Your task to perform on an android device: Open Yahoo.com Image 0: 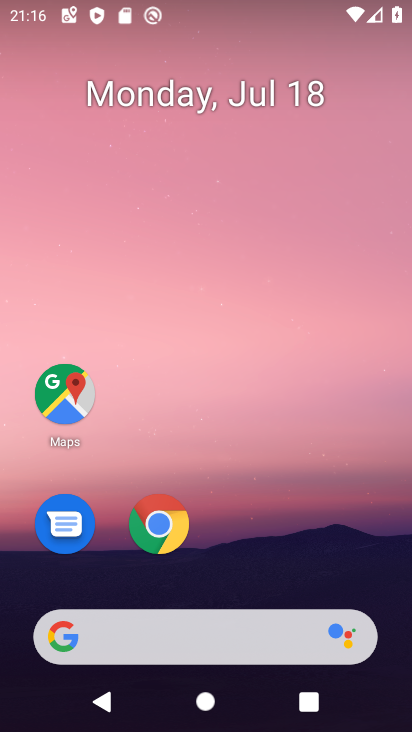
Step 0: click (242, 636)
Your task to perform on an android device: Open Yahoo.com Image 1: 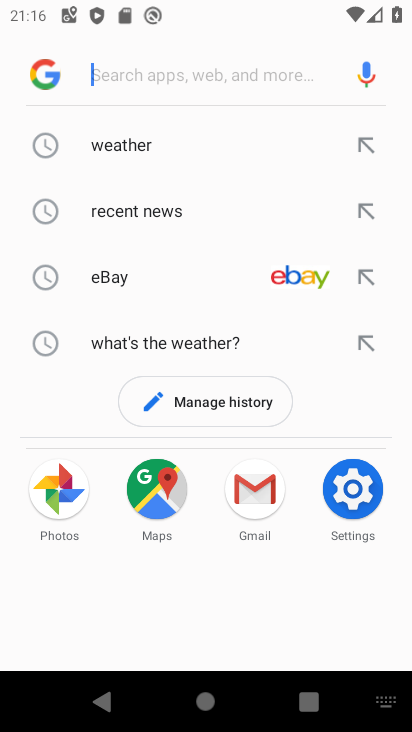
Step 1: type "yahoo.com"
Your task to perform on an android device: Open Yahoo.com Image 2: 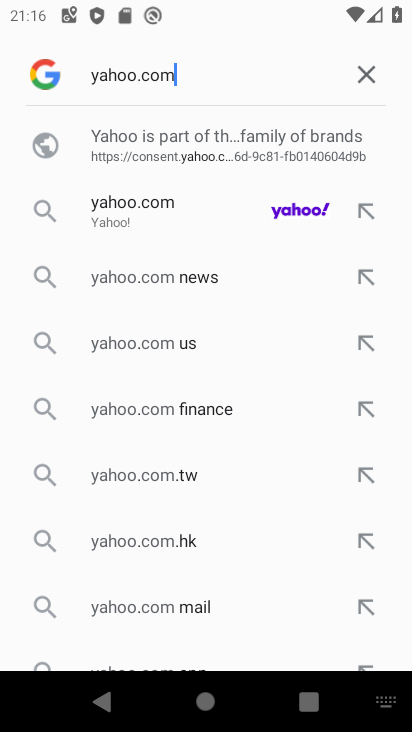
Step 2: click (305, 203)
Your task to perform on an android device: Open Yahoo.com Image 3: 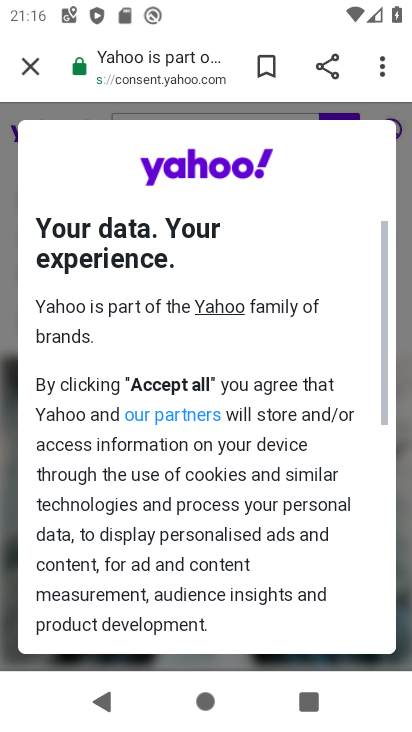
Step 3: drag from (266, 524) to (294, 265)
Your task to perform on an android device: Open Yahoo.com Image 4: 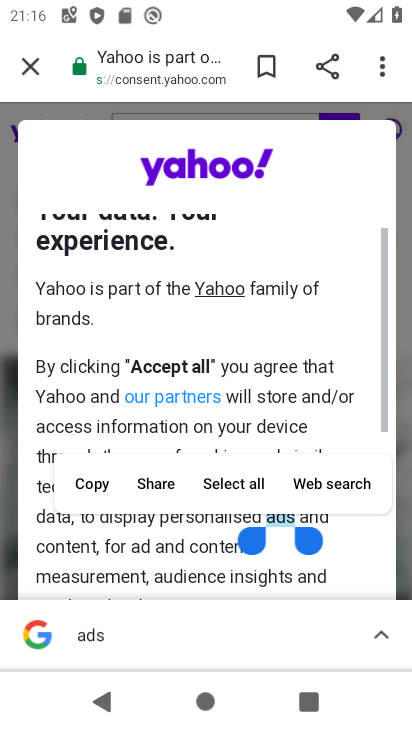
Step 4: click (277, 250)
Your task to perform on an android device: Open Yahoo.com Image 5: 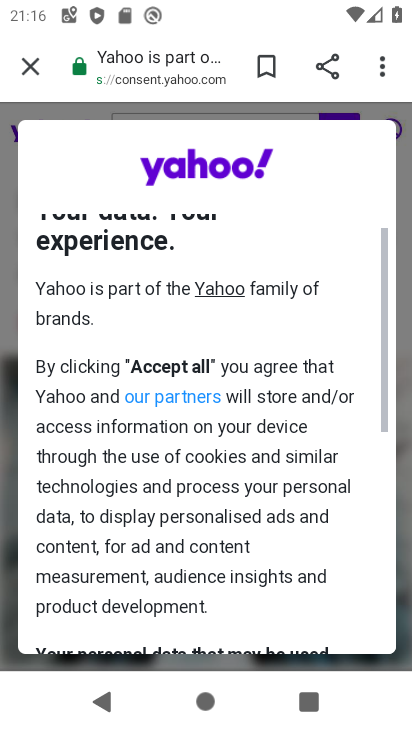
Step 5: click (200, 364)
Your task to perform on an android device: Open Yahoo.com Image 6: 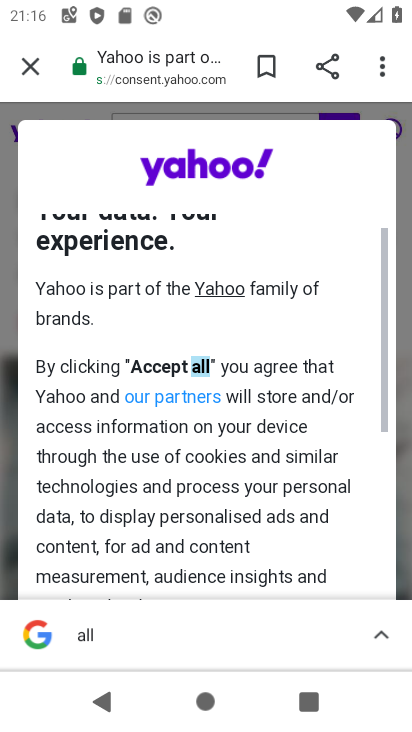
Step 6: drag from (287, 522) to (335, 238)
Your task to perform on an android device: Open Yahoo.com Image 7: 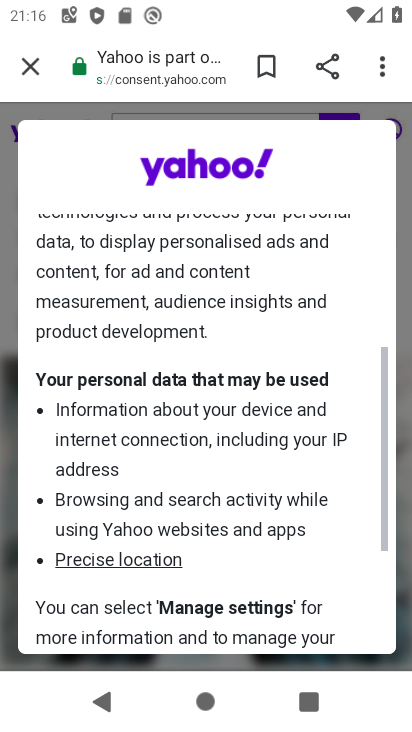
Step 7: drag from (311, 500) to (280, 246)
Your task to perform on an android device: Open Yahoo.com Image 8: 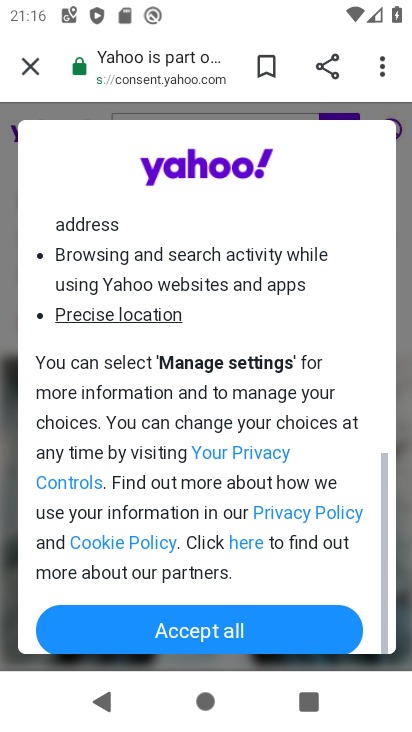
Step 8: click (304, 624)
Your task to perform on an android device: Open Yahoo.com Image 9: 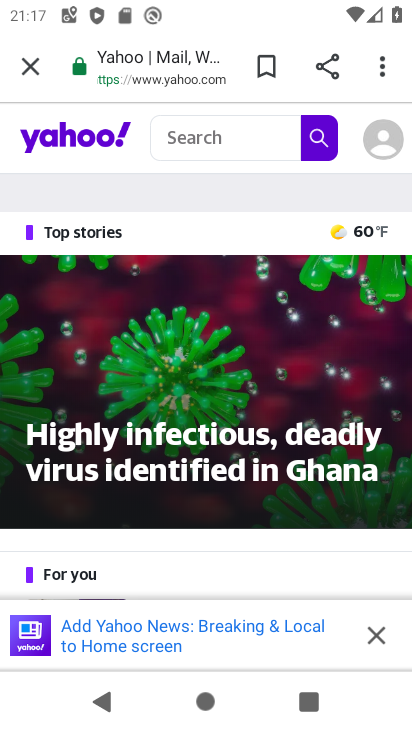
Step 9: drag from (209, 475) to (214, 120)
Your task to perform on an android device: Open Yahoo.com Image 10: 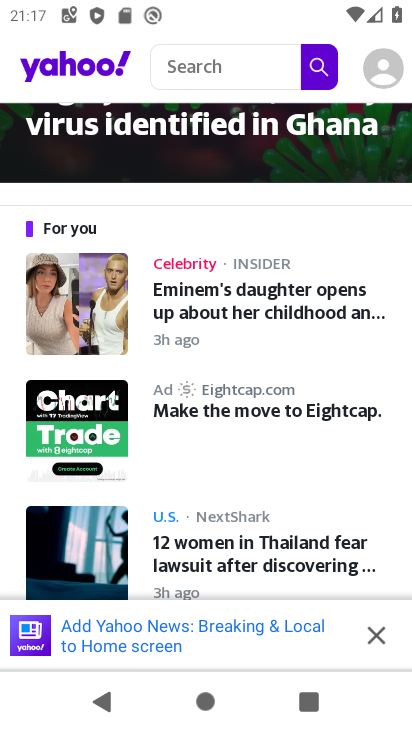
Step 10: drag from (264, 471) to (266, 214)
Your task to perform on an android device: Open Yahoo.com Image 11: 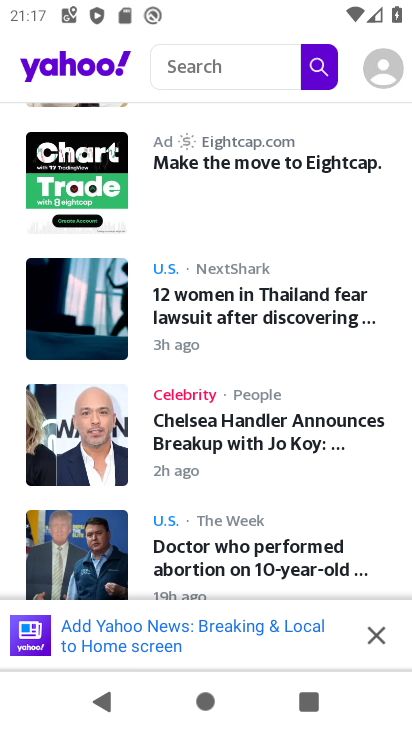
Step 11: click (268, 312)
Your task to perform on an android device: Open Yahoo.com Image 12: 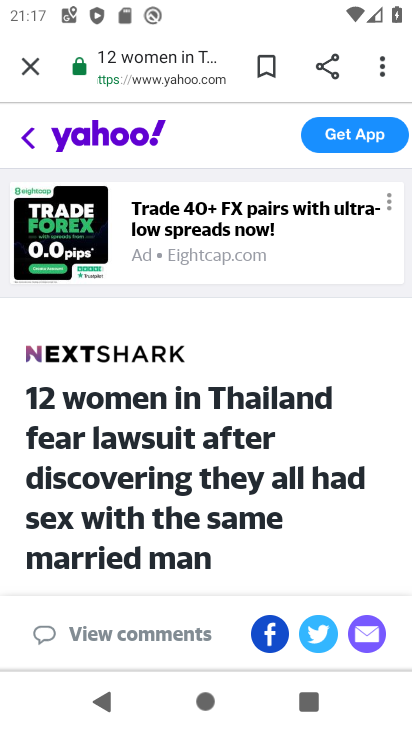
Step 12: task complete